Your task to perform on an android device: Open maps Image 0: 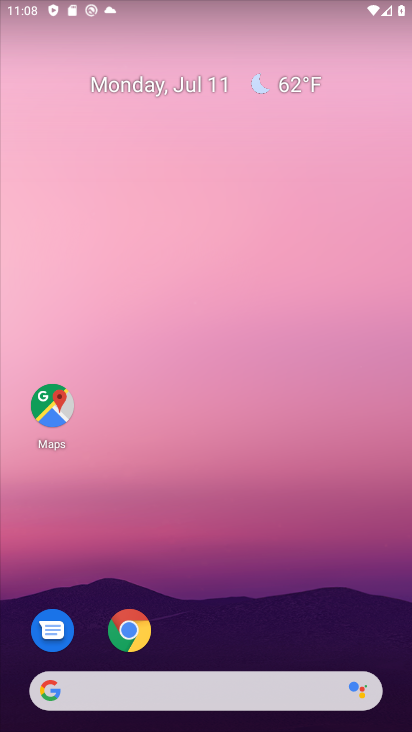
Step 0: drag from (163, 668) to (224, 38)
Your task to perform on an android device: Open maps Image 1: 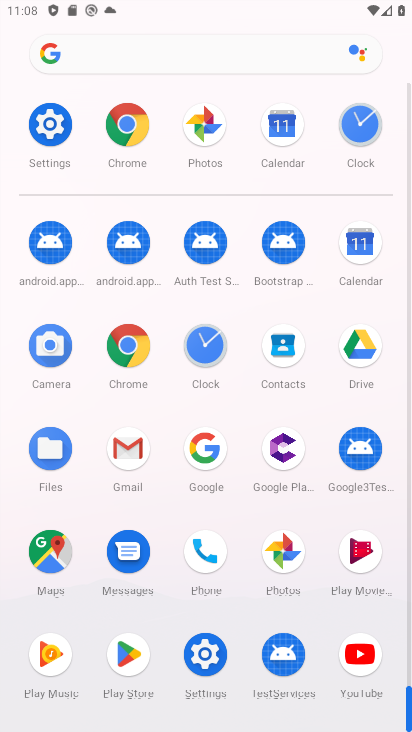
Step 1: click (56, 559)
Your task to perform on an android device: Open maps Image 2: 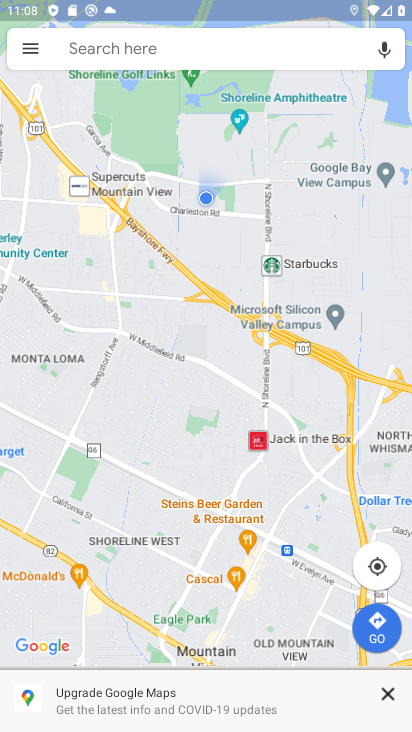
Step 2: task complete